Your task to perform on an android device: Open my contact list Image 0: 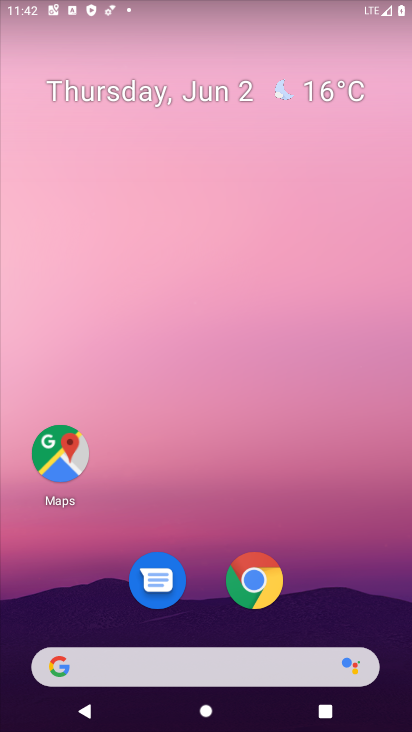
Step 0: click (290, 249)
Your task to perform on an android device: Open my contact list Image 1: 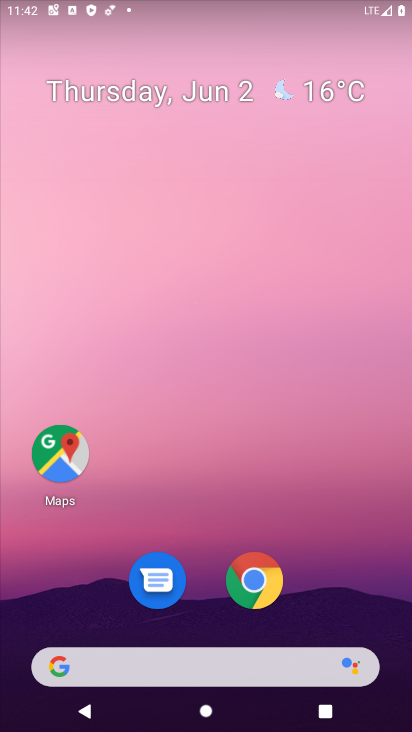
Step 1: drag from (250, 576) to (228, 360)
Your task to perform on an android device: Open my contact list Image 2: 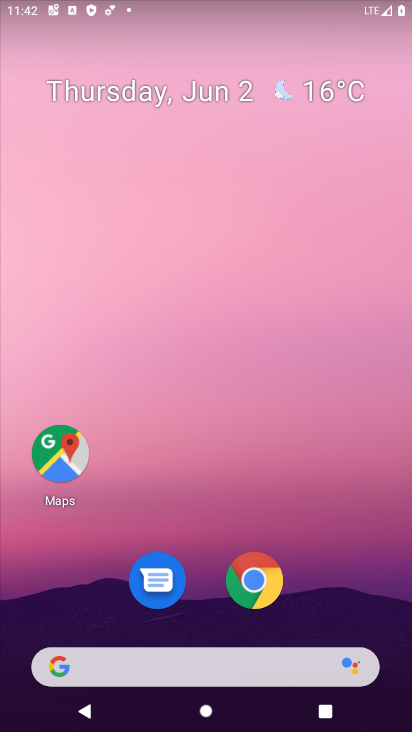
Step 2: drag from (220, 689) to (211, 107)
Your task to perform on an android device: Open my contact list Image 3: 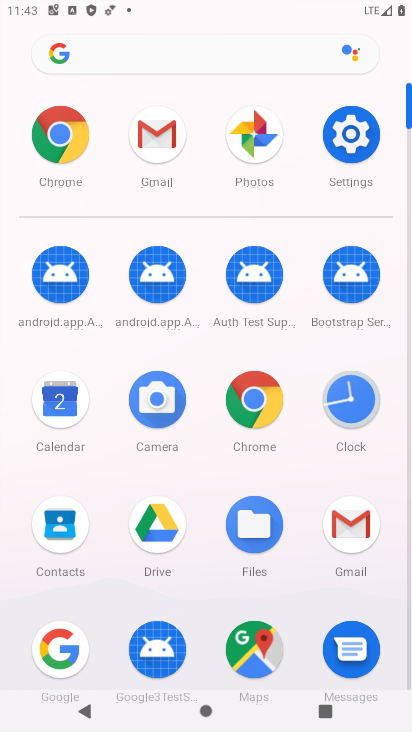
Step 3: click (72, 526)
Your task to perform on an android device: Open my contact list Image 4: 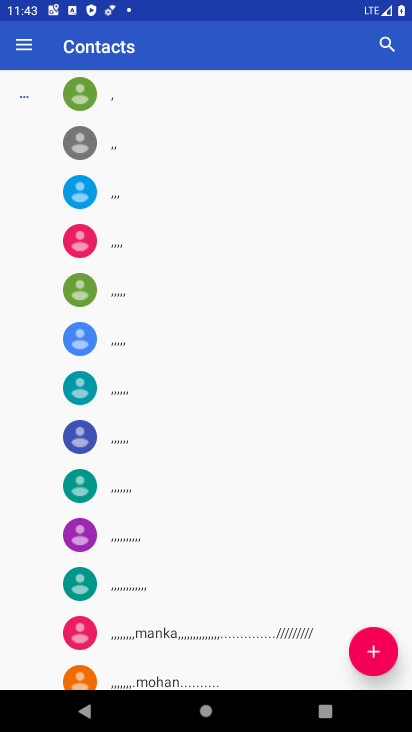
Step 4: task complete